Your task to perform on an android device: open app "LinkedIn" (install if not already installed) and go to login screen Image 0: 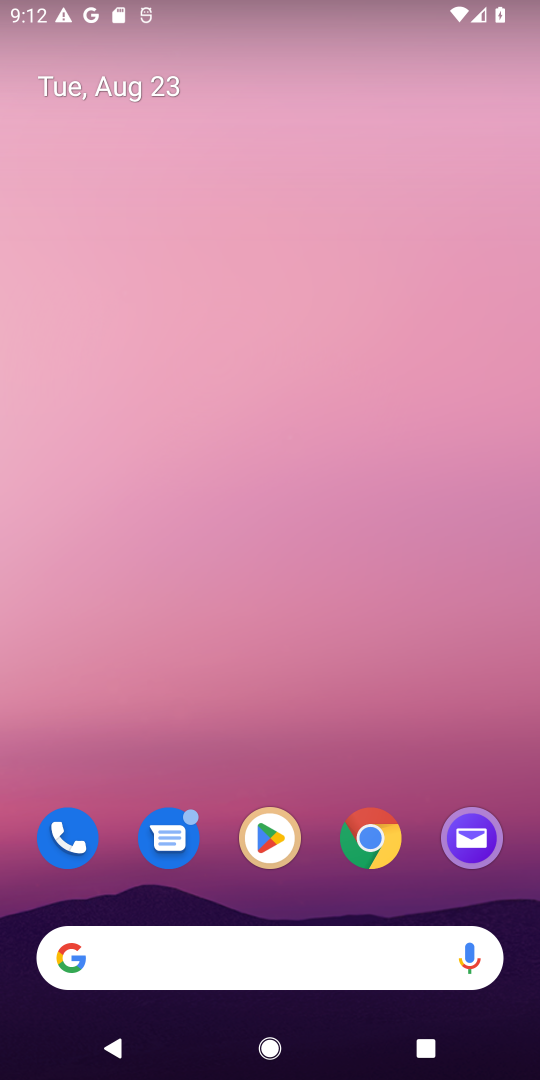
Step 0: click (255, 854)
Your task to perform on an android device: open app "LinkedIn" (install if not already installed) and go to login screen Image 1: 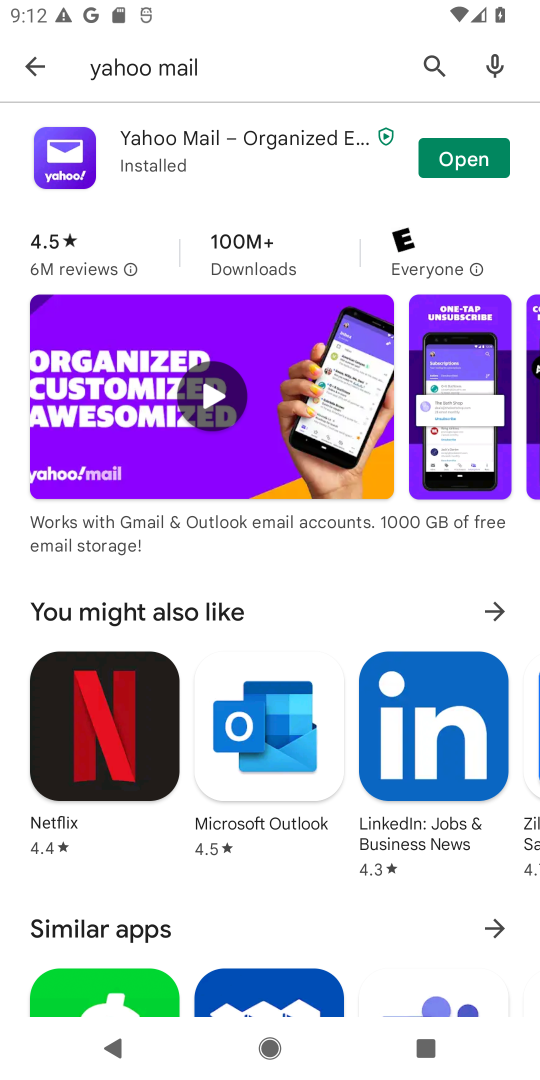
Step 1: click (435, 76)
Your task to perform on an android device: open app "LinkedIn" (install if not already installed) and go to login screen Image 2: 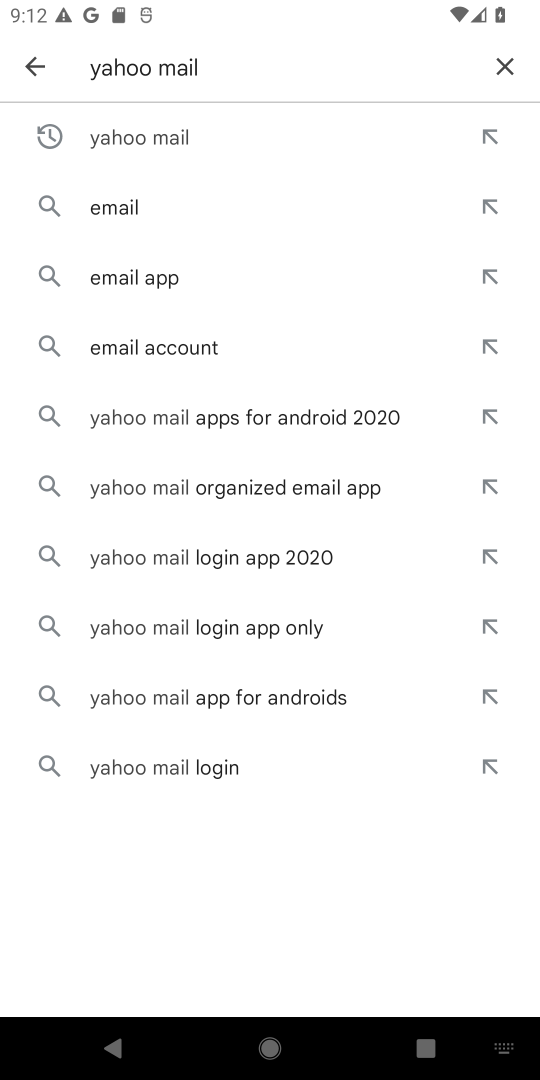
Step 2: click (493, 75)
Your task to perform on an android device: open app "LinkedIn" (install if not already installed) and go to login screen Image 3: 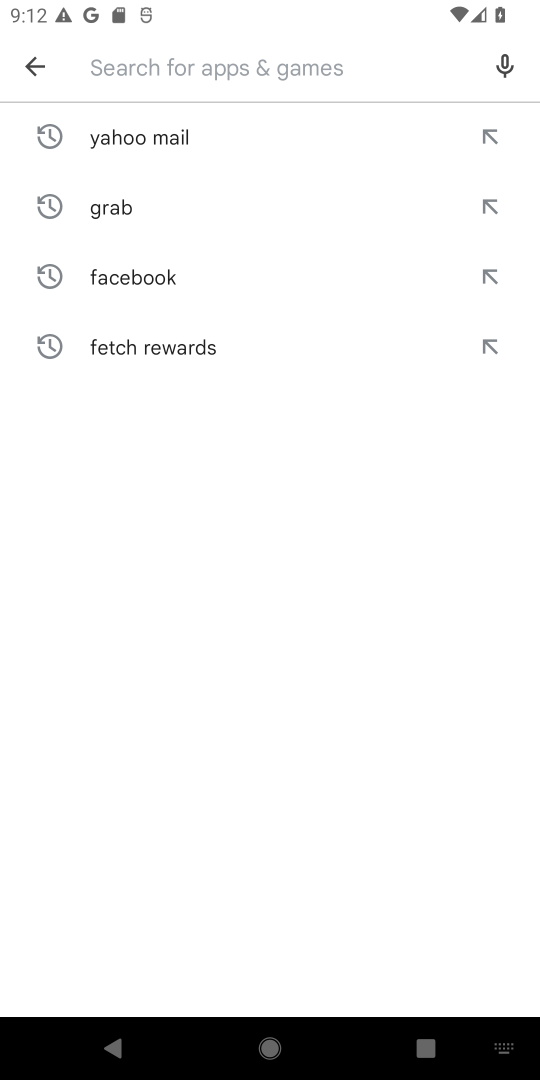
Step 3: type "LinkedIn"
Your task to perform on an android device: open app "LinkedIn" (install if not already installed) and go to login screen Image 4: 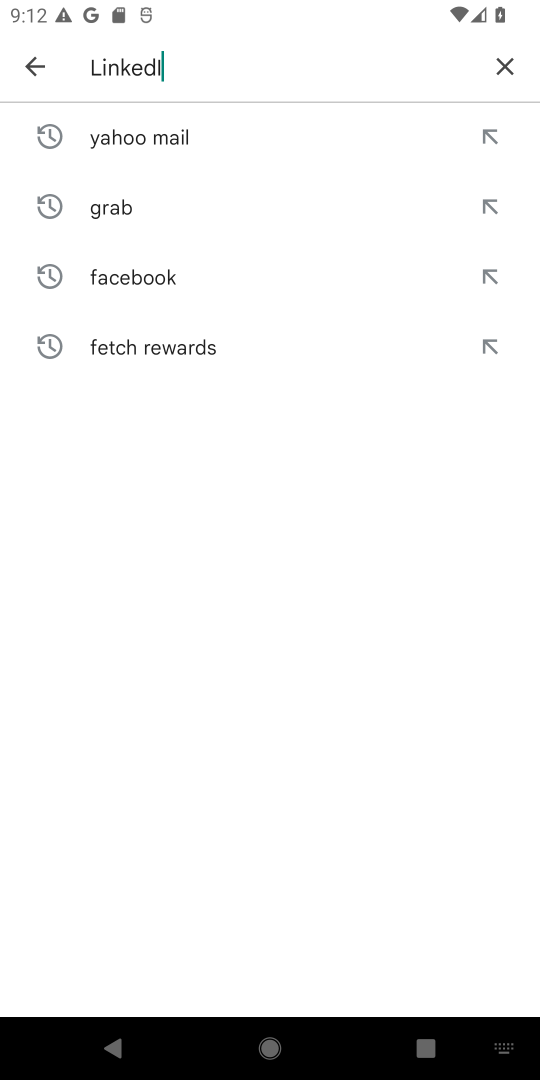
Step 4: type ""
Your task to perform on an android device: open app "LinkedIn" (install if not already installed) and go to login screen Image 5: 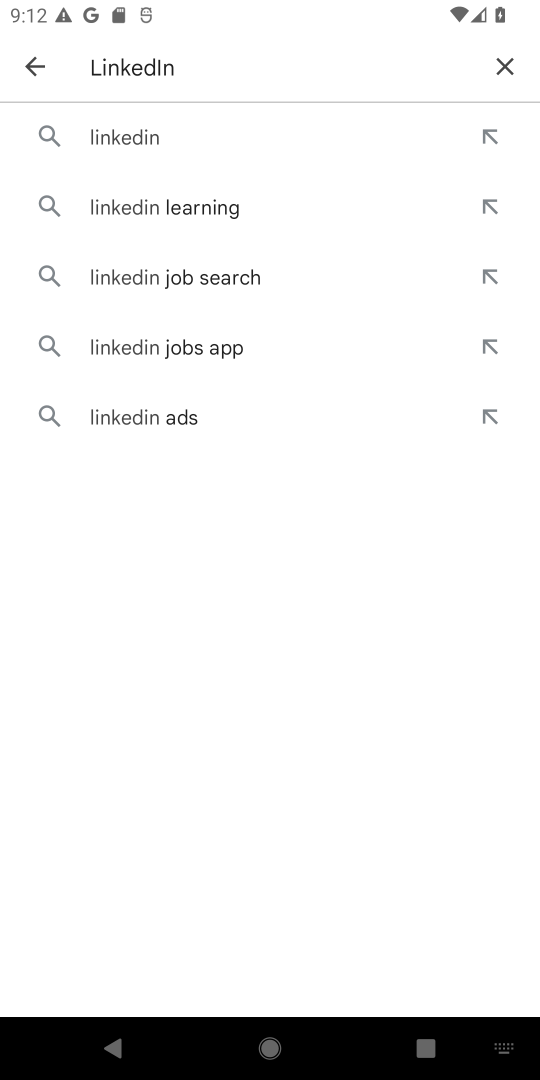
Step 5: click (214, 144)
Your task to perform on an android device: open app "LinkedIn" (install if not already installed) and go to login screen Image 6: 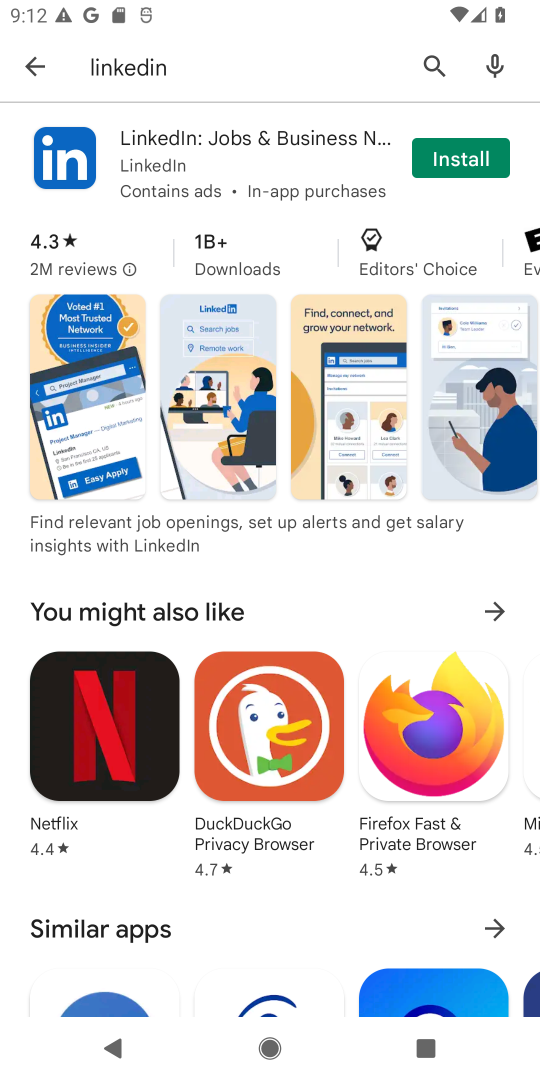
Step 6: click (463, 157)
Your task to perform on an android device: open app "LinkedIn" (install if not already installed) and go to login screen Image 7: 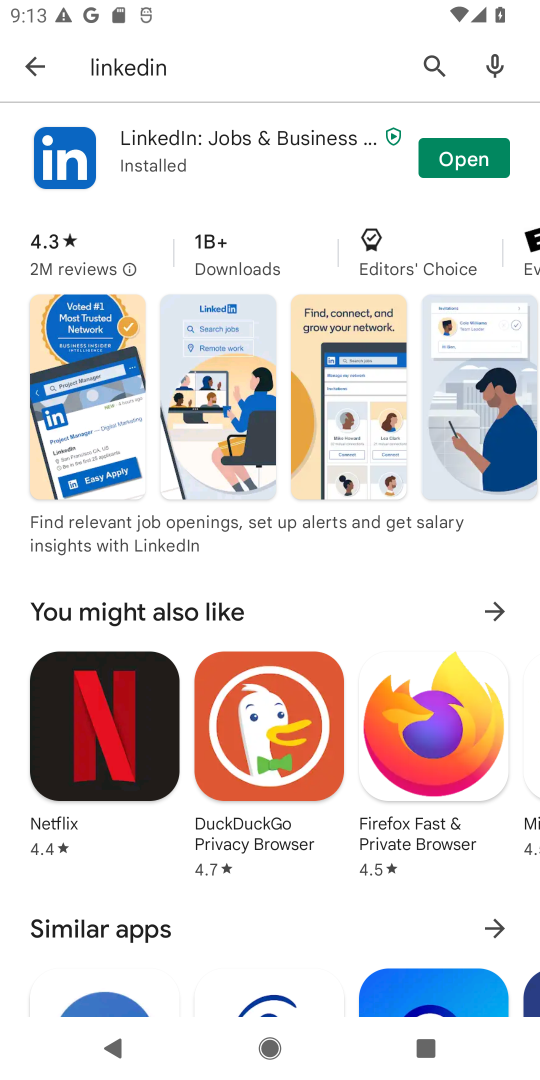
Step 7: click (495, 158)
Your task to perform on an android device: open app "LinkedIn" (install if not already installed) and go to login screen Image 8: 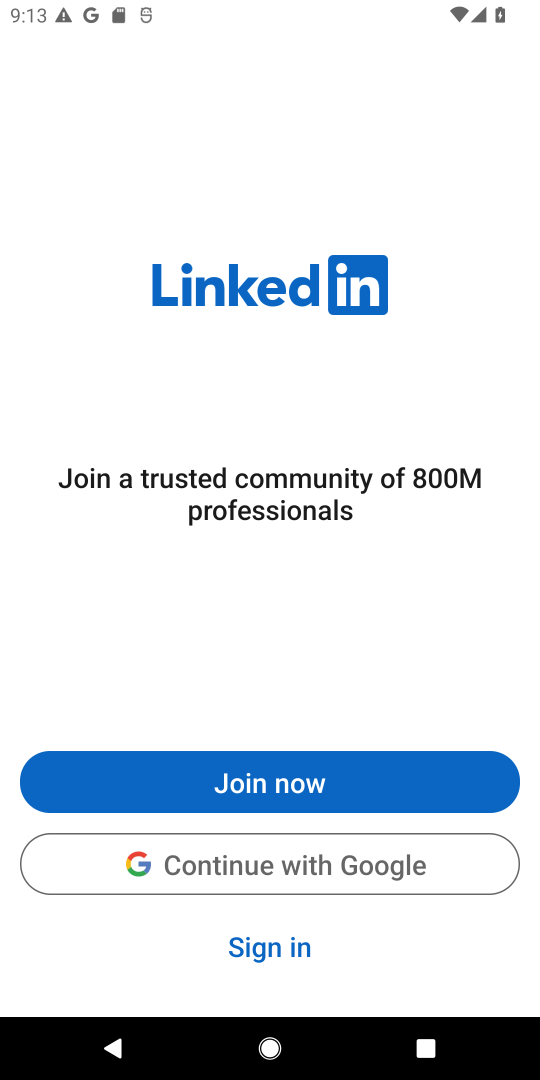
Step 8: task complete